Your task to perform on an android device: Open the web browser Image 0: 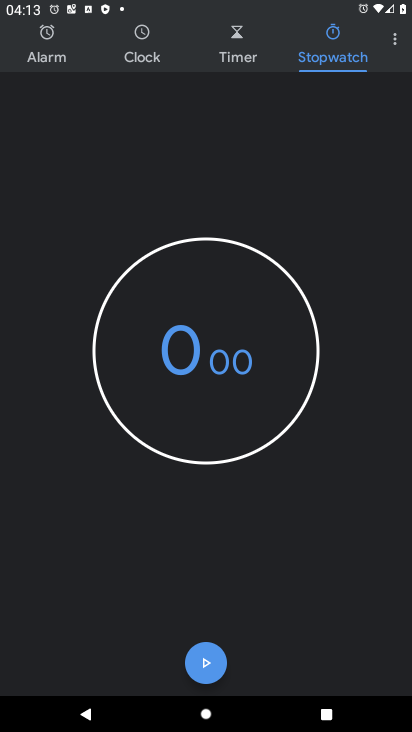
Step 0: press home button
Your task to perform on an android device: Open the web browser Image 1: 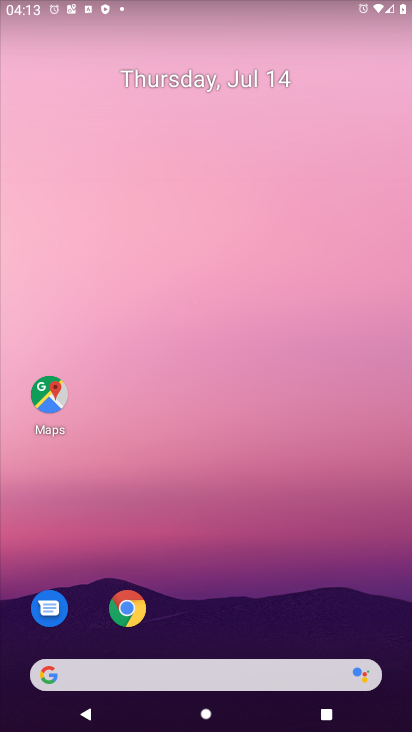
Step 1: click (127, 611)
Your task to perform on an android device: Open the web browser Image 2: 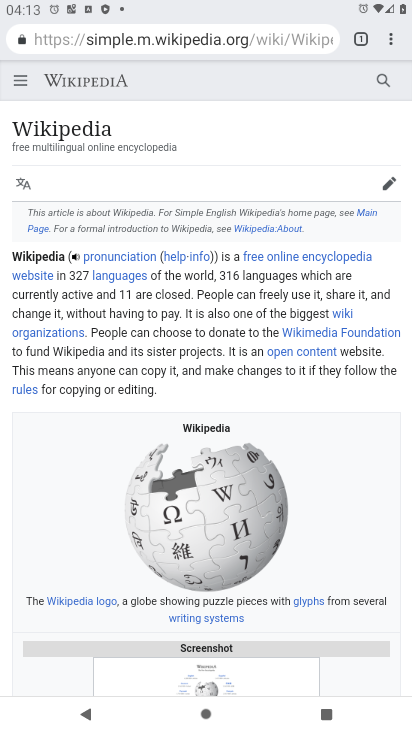
Step 2: task complete